Your task to perform on an android device: set an alarm Image 0: 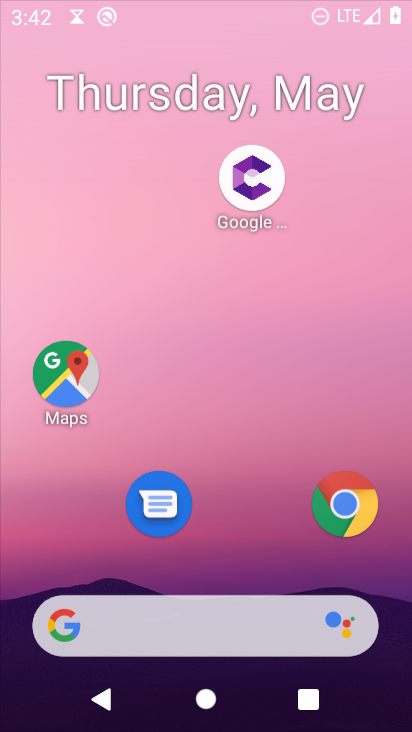
Step 0: press home button
Your task to perform on an android device: set an alarm Image 1: 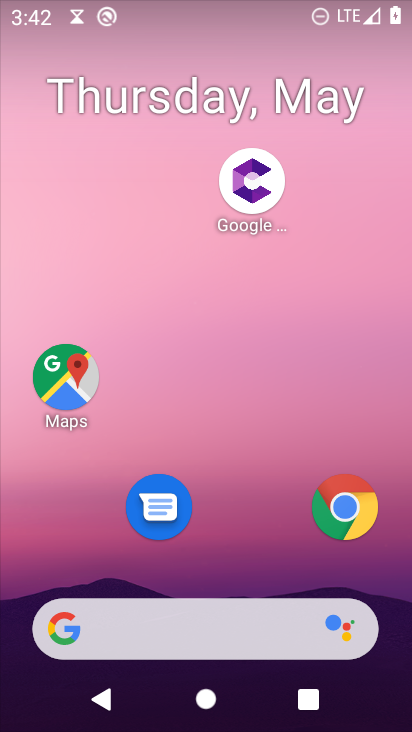
Step 1: press home button
Your task to perform on an android device: set an alarm Image 2: 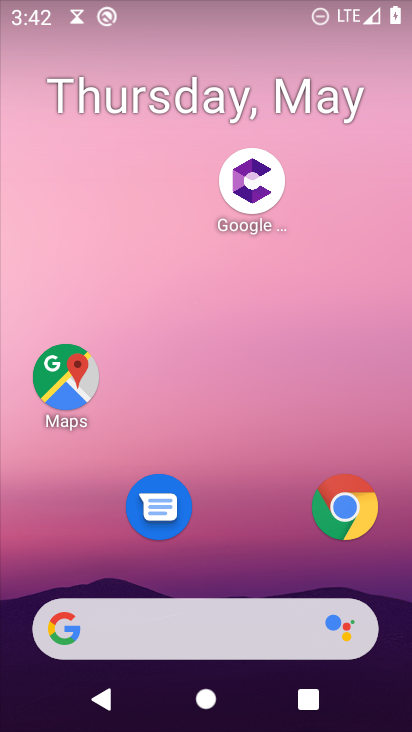
Step 2: drag from (242, 579) to (247, 237)
Your task to perform on an android device: set an alarm Image 3: 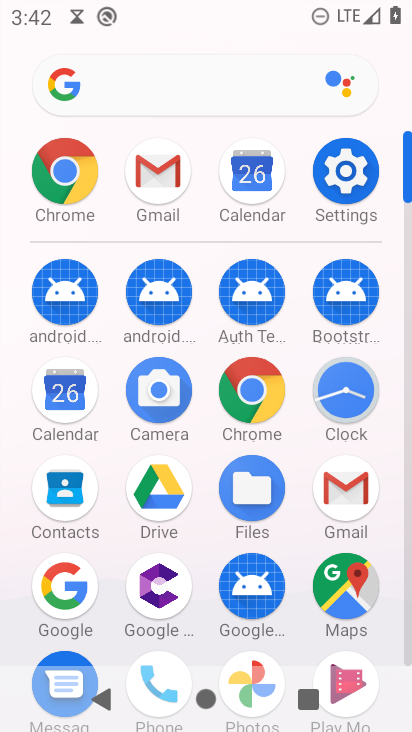
Step 3: click (354, 407)
Your task to perform on an android device: set an alarm Image 4: 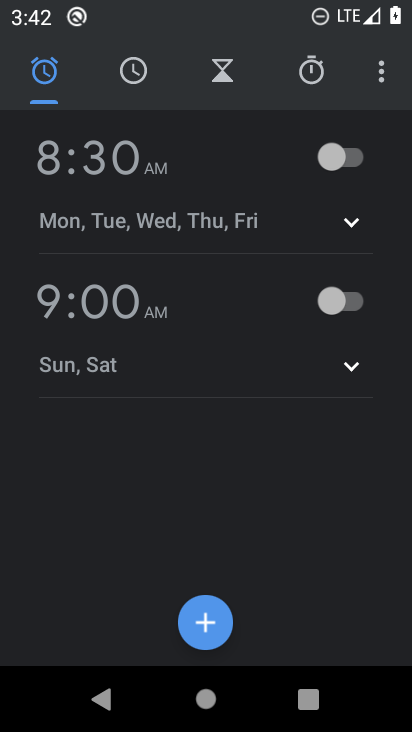
Step 4: click (341, 158)
Your task to perform on an android device: set an alarm Image 5: 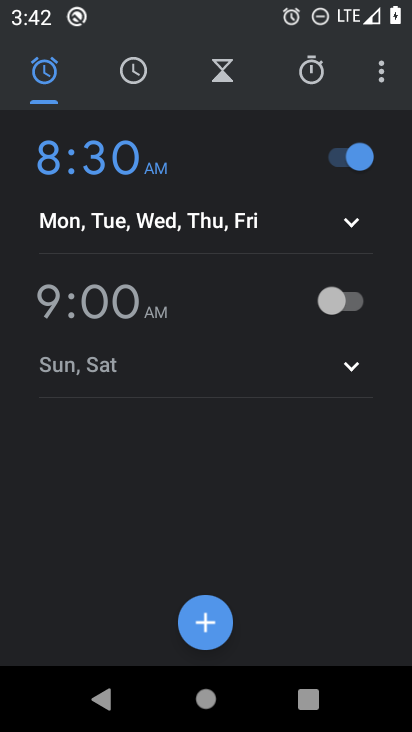
Step 5: task complete